Your task to perform on an android device: When is my next appointment? Image 0: 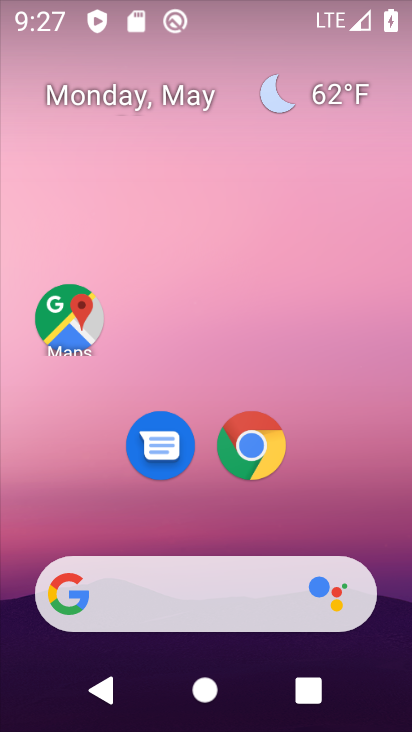
Step 0: drag from (398, 615) to (320, 67)
Your task to perform on an android device: When is my next appointment? Image 1: 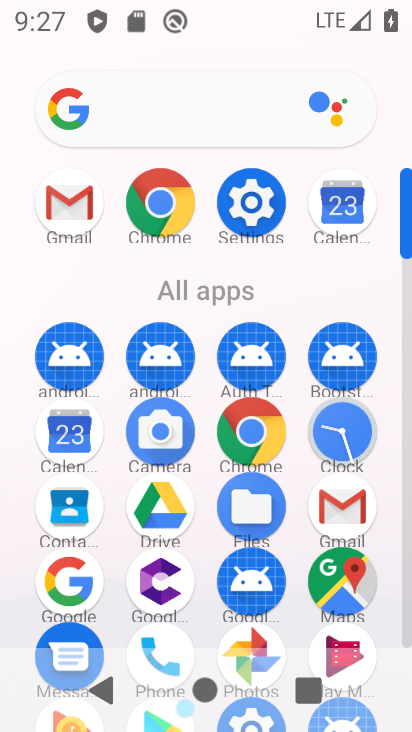
Step 1: click (64, 425)
Your task to perform on an android device: When is my next appointment? Image 2: 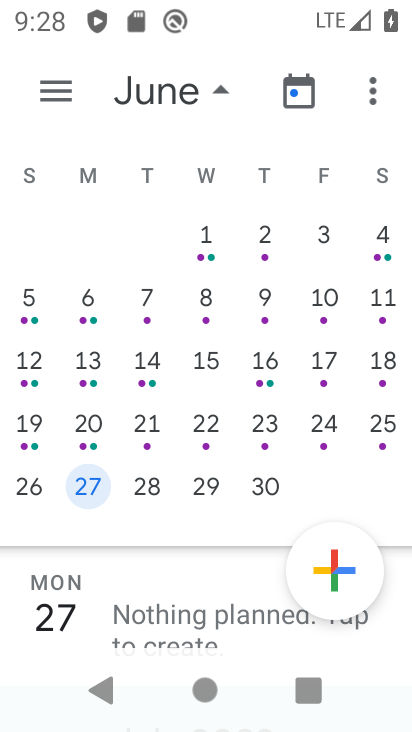
Step 2: task complete